Your task to perform on an android device: change timer sound Image 0: 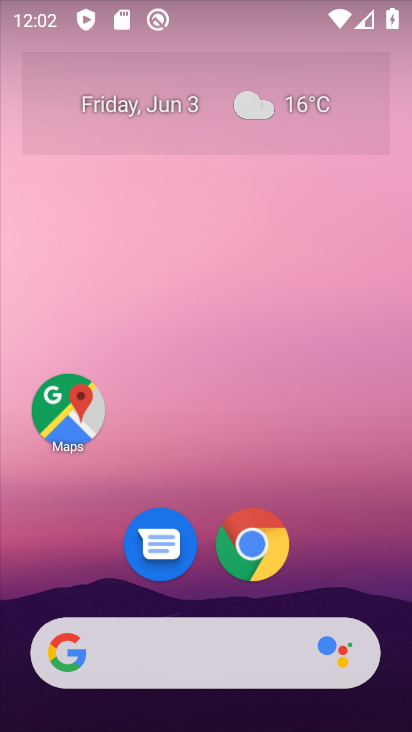
Step 0: drag from (356, 557) to (333, 128)
Your task to perform on an android device: change timer sound Image 1: 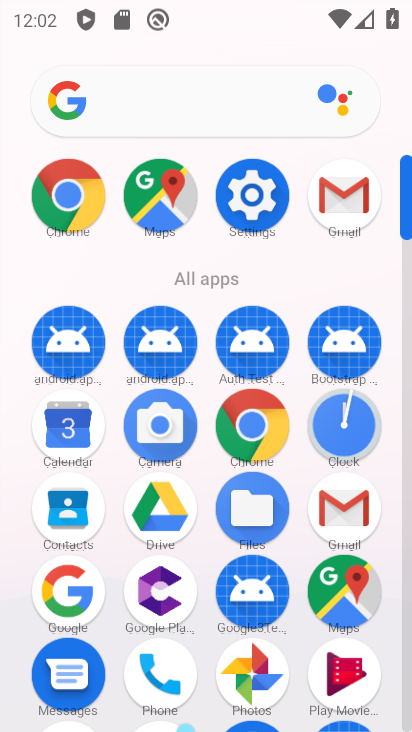
Step 1: click (339, 457)
Your task to perform on an android device: change timer sound Image 2: 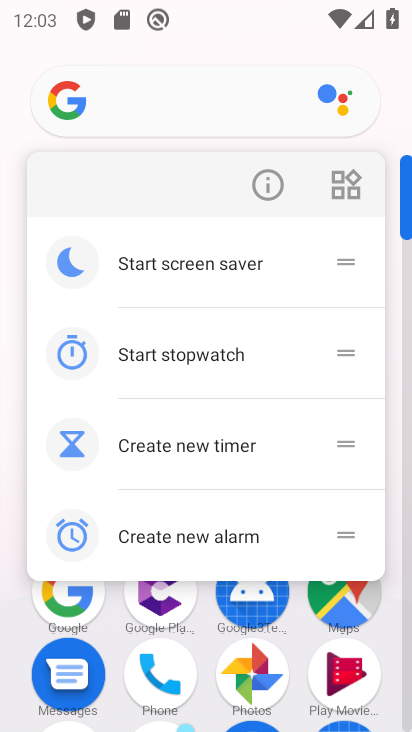
Step 2: drag from (275, 647) to (298, 269)
Your task to perform on an android device: change timer sound Image 3: 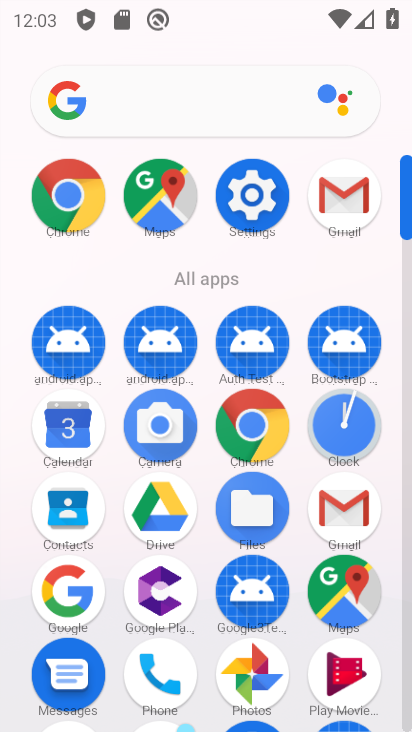
Step 3: click (248, 212)
Your task to perform on an android device: change timer sound Image 4: 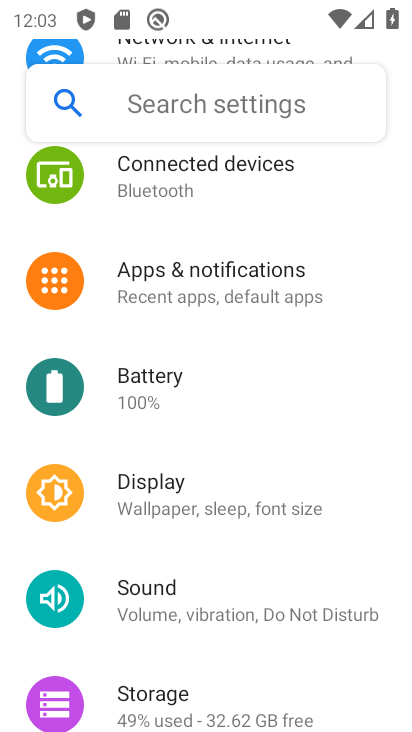
Step 4: press home button
Your task to perform on an android device: change timer sound Image 5: 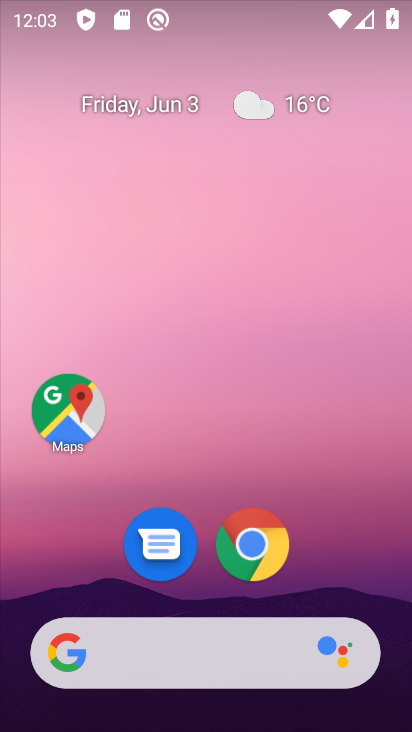
Step 5: drag from (400, 533) to (373, 130)
Your task to perform on an android device: change timer sound Image 6: 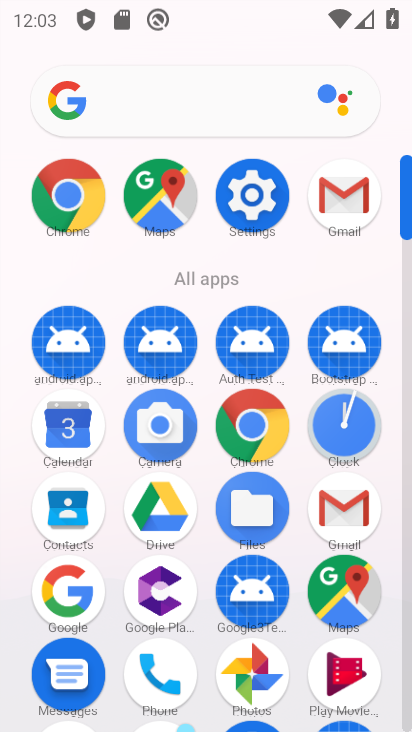
Step 6: click (349, 429)
Your task to perform on an android device: change timer sound Image 7: 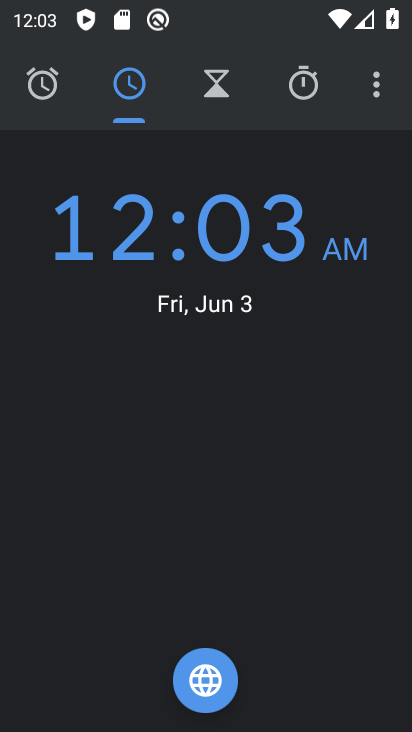
Step 7: drag from (373, 101) to (342, 170)
Your task to perform on an android device: change timer sound Image 8: 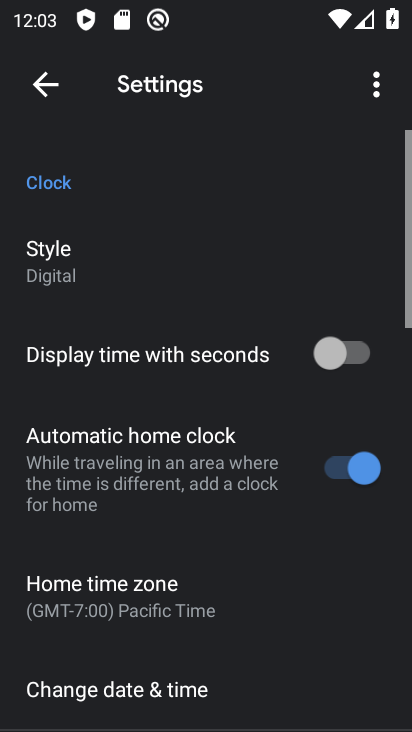
Step 8: drag from (281, 616) to (315, 259)
Your task to perform on an android device: change timer sound Image 9: 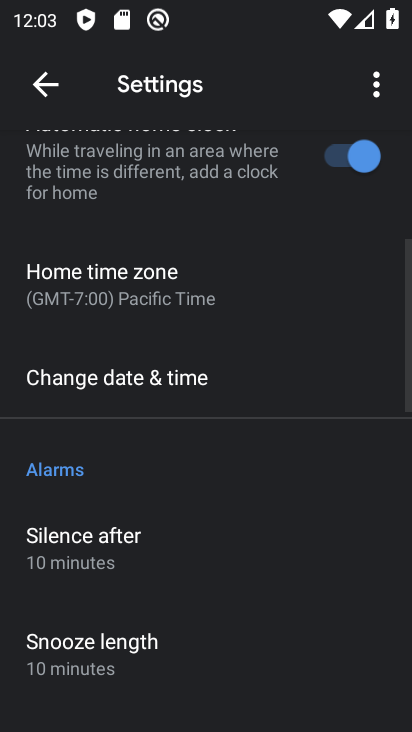
Step 9: drag from (292, 542) to (320, 274)
Your task to perform on an android device: change timer sound Image 10: 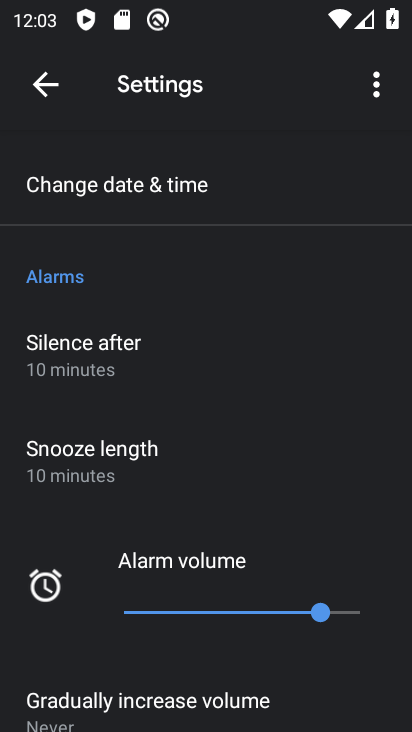
Step 10: drag from (281, 574) to (356, 233)
Your task to perform on an android device: change timer sound Image 11: 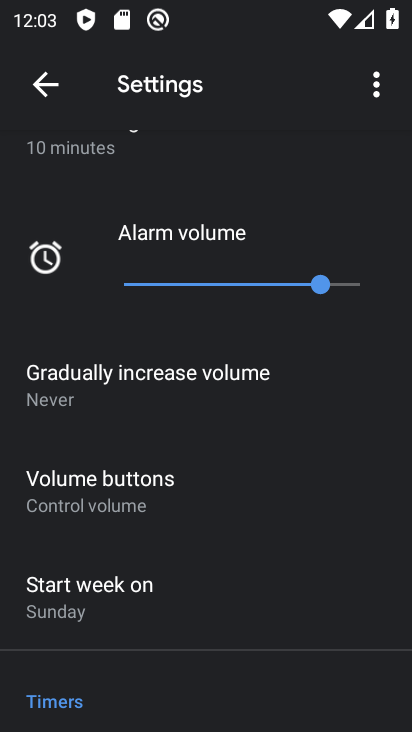
Step 11: drag from (278, 529) to (334, 167)
Your task to perform on an android device: change timer sound Image 12: 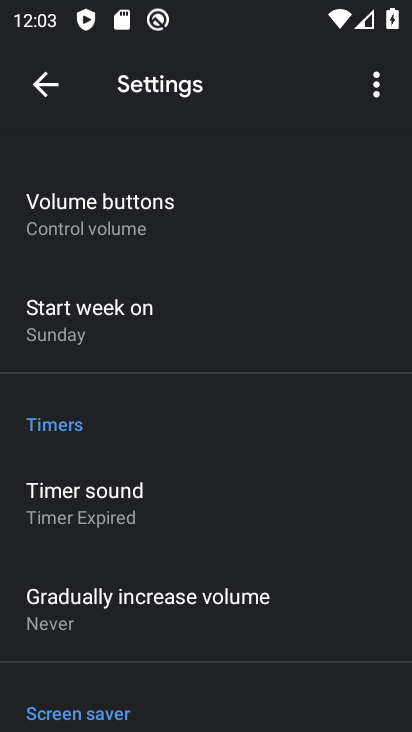
Step 12: click (196, 490)
Your task to perform on an android device: change timer sound Image 13: 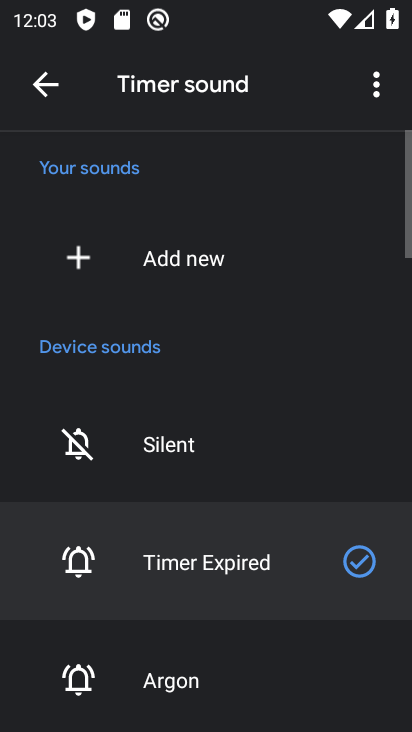
Step 13: click (180, 685)
Your task to perform on an android device: change timer sound Image 14: 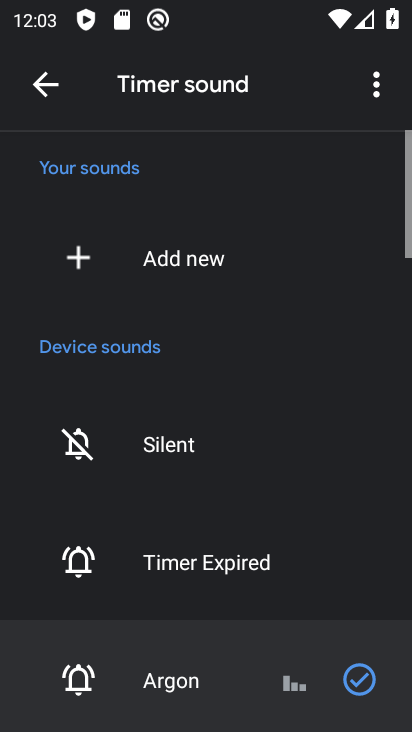
Step 14: task complete